Your task to perform on an android device: visit the assistant section in the google photos Image 0: 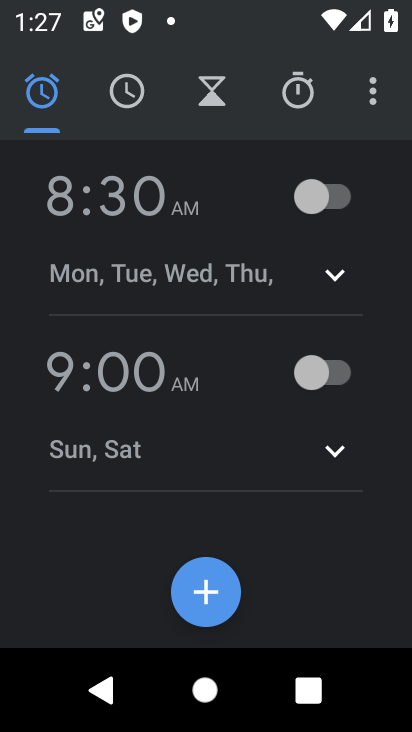
Step 0: press home button
Your task to perform on an android device: visit the assistant section in the google photos Image 1: 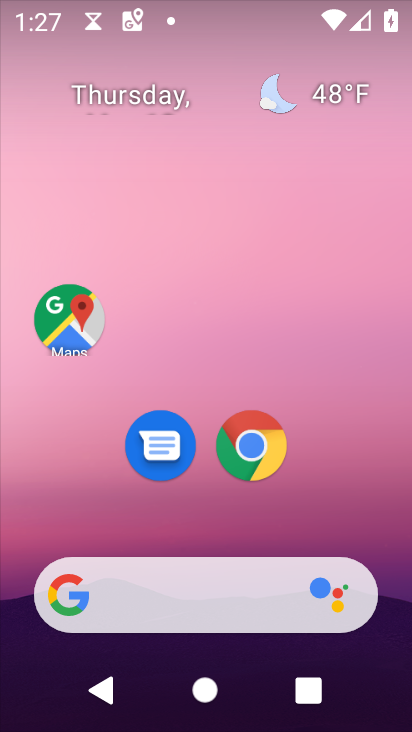
Step 1: drag from (231, 350) to (231, 2)
Your task to perform on an android device: visit the assistant section in the google photos Image 2: 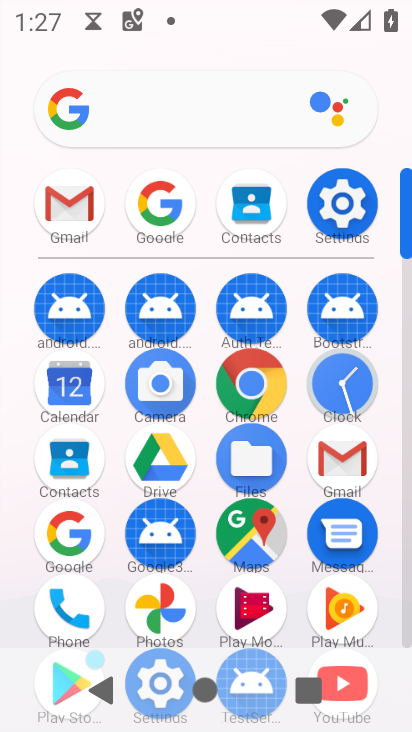
Step 2: click (165, 589)
Your task to perform on an android device: visit the assistant section in the google photos Image 3: 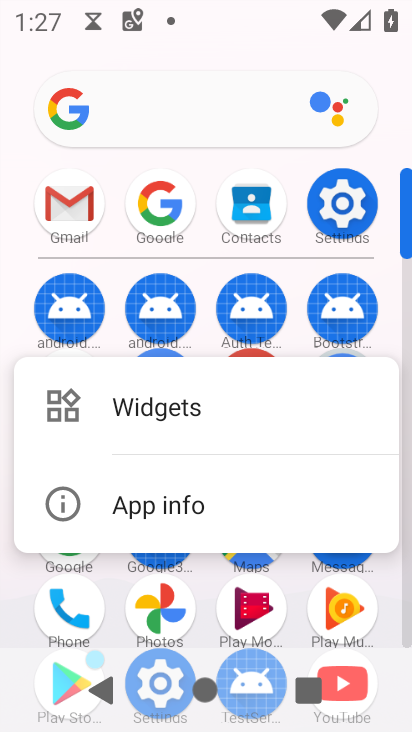
Step 3: click (163, 608)
Your task to perform on an android device: visit the assistant section in the google photos Image 4: 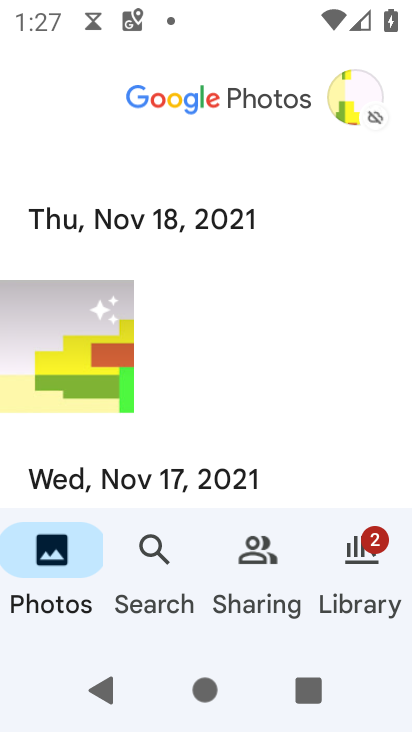
Step 4: click (159, 562)
Your task to perform on an android device: visit the assistant section in the google photos Image 5: 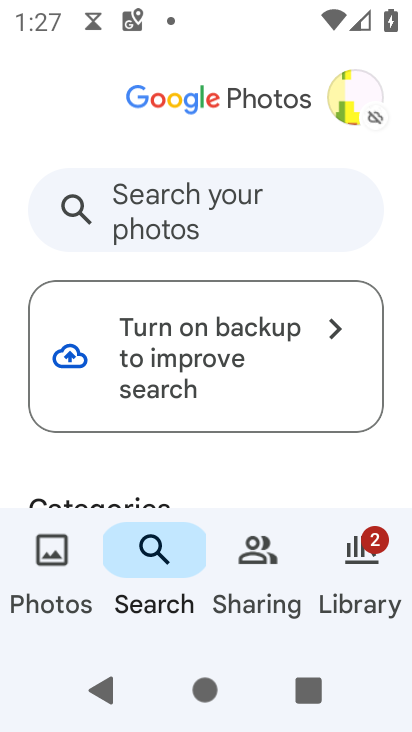
Step 5: click (169, 189)
Your task to perform on an android device: visit the assistant section in the google photos Image 6: 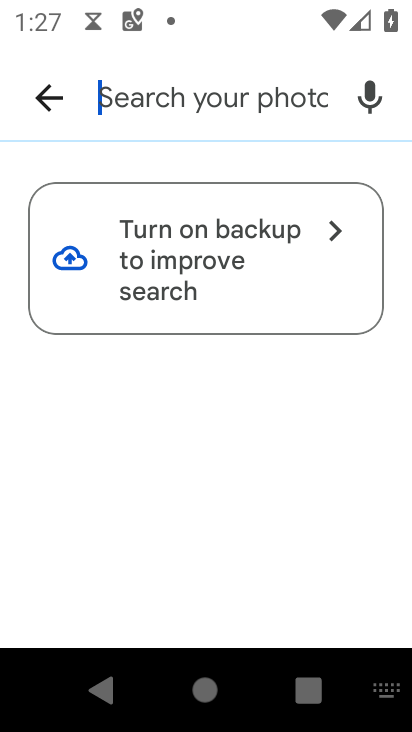
Step 6: type "assistant"
Your task to perform on an android device: visit the assistant section in the google photos Image 7: 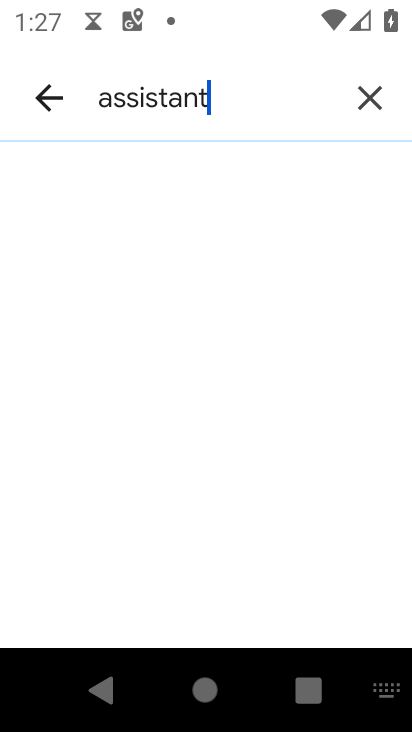
Step 7: task complete